Your task to perform on an android device: check data usage Image 0: 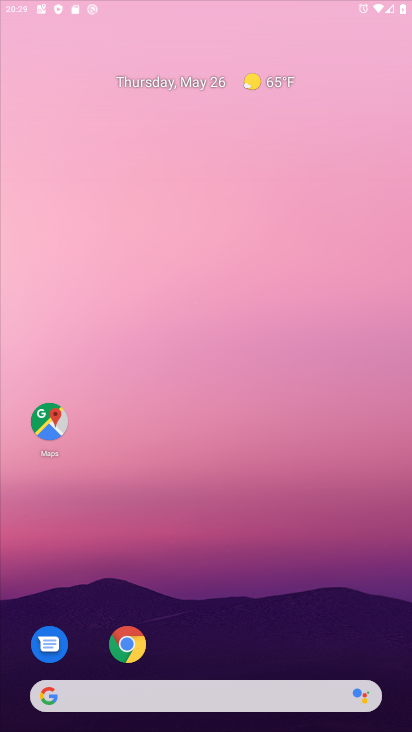
Step 0: click (180, 210)
Your task to perform on an android device: check data usage Image 1: 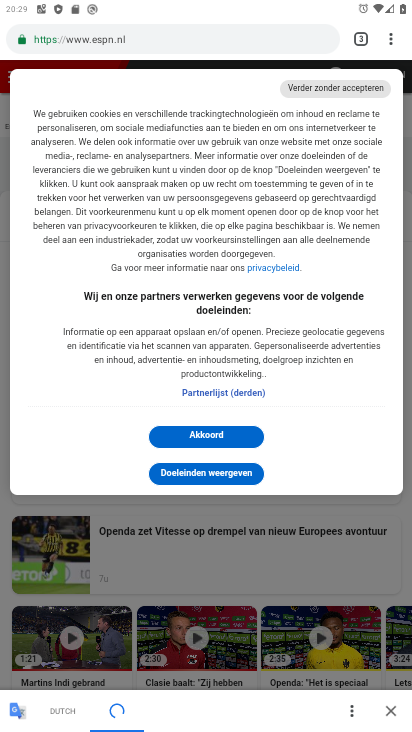
Step 1: press home button
Your task to perform on an android device: check data usage Image 2: 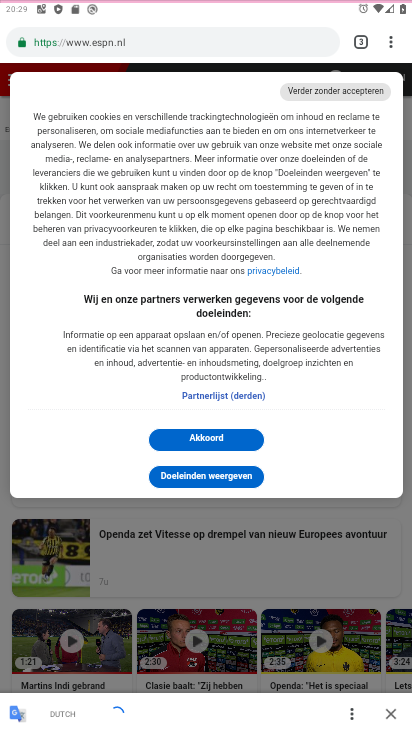
Step 2: drag from (239, 613) to (320, 2)
Your task to perform on an android device: check data usage Image 3: 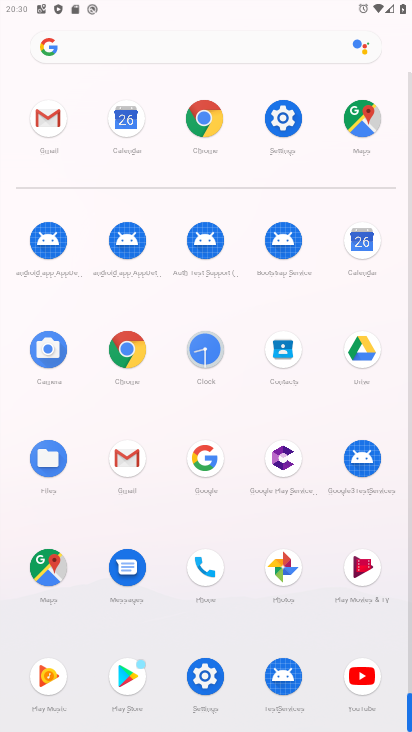
Step 3: click (284, 125)
Your task to perform on an android device: check data usage Image 4: 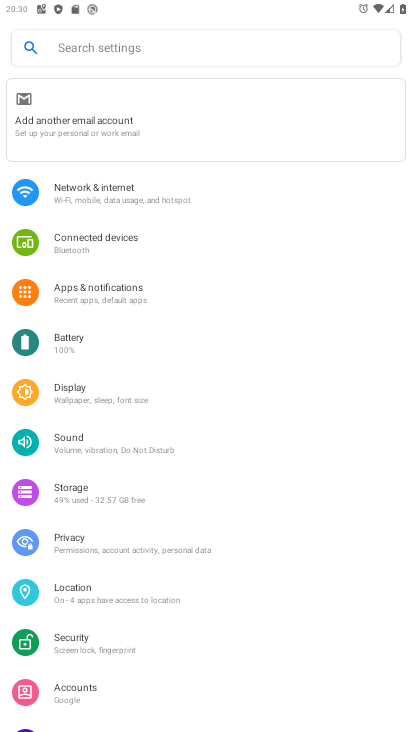
Step 4: click (160, 193)
Your task to perform on an android device: check data usage Image 5: 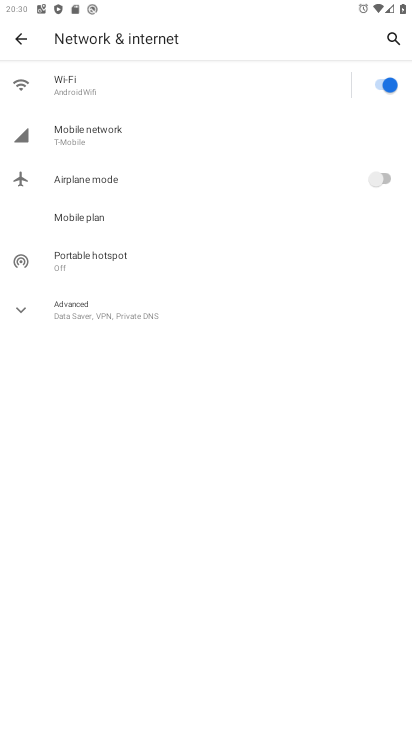
Step 5: click (118, 126)
Your task to perform on an android device: check data usage Image 6: 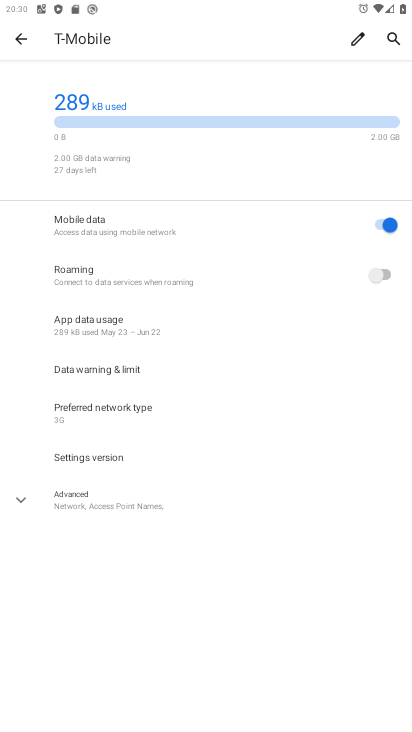
Step 6: drag from (232, 496) to (252, 205)
Your task to perform on an android device: check data usage Image 7: 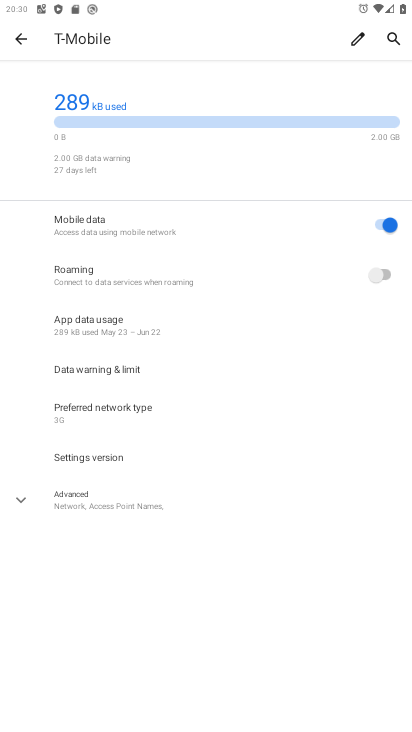
Step 7: click (192, 105)
Your task to perform on an android device: check data usage Image 8: 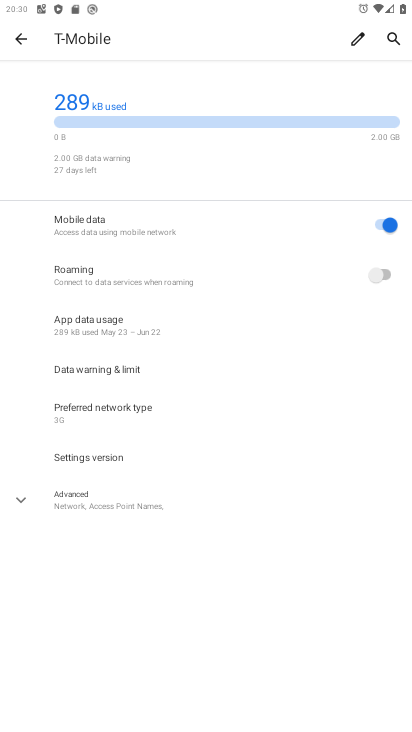
Step 8: task complete